Your task to perform on an android device: check data usage Image 0: 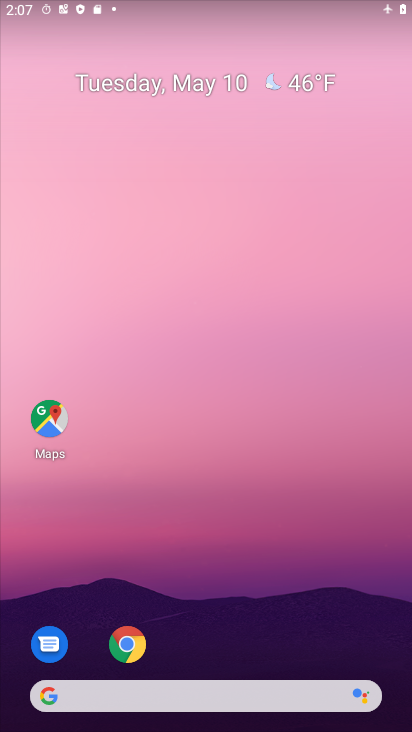
Step 0: drag from (225, 645) to (222, 218)
Your task to perform on an android device: check data usage Image 1: 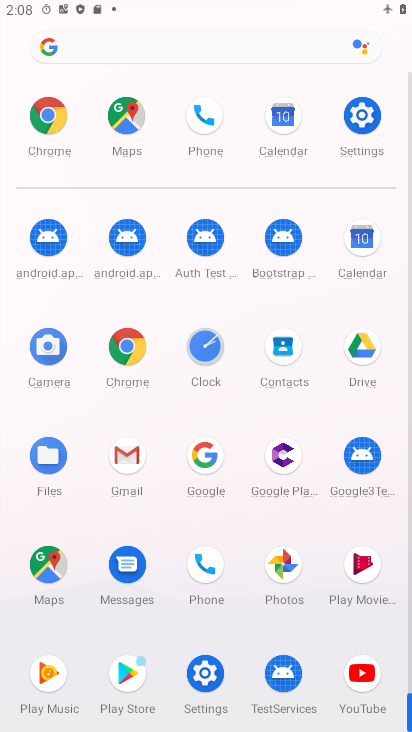
Step 1: click (362, 133)
Your task to perform on an android device: check data usage Image 2: 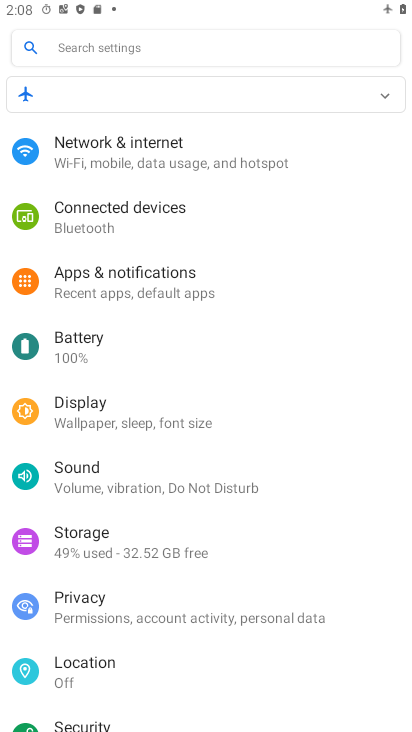
Step 2: click (169, 168)
Your task to perform on an android device: check data usage Image 3: 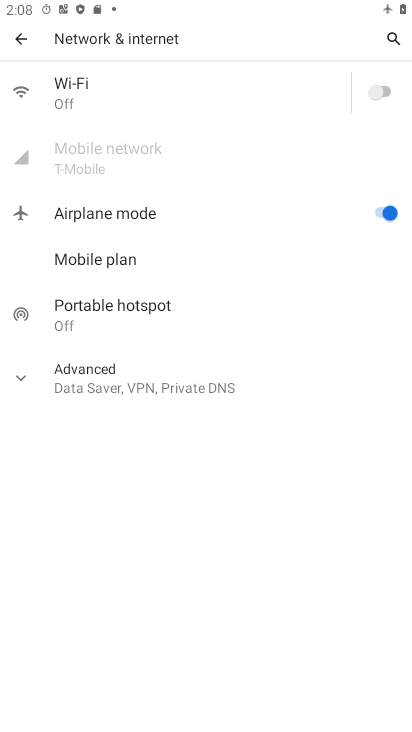
Step 3: click (139, 158)
Your task to perform on an android device: check data usage Image 4: 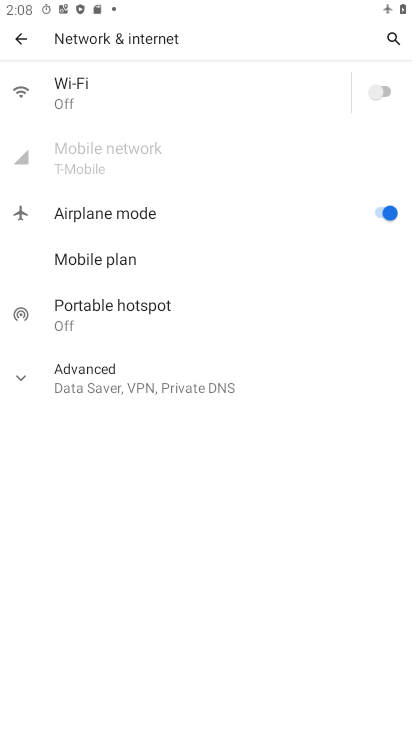
Step 4: task complete